Your task to perform on an android device: add a contact Image 0: 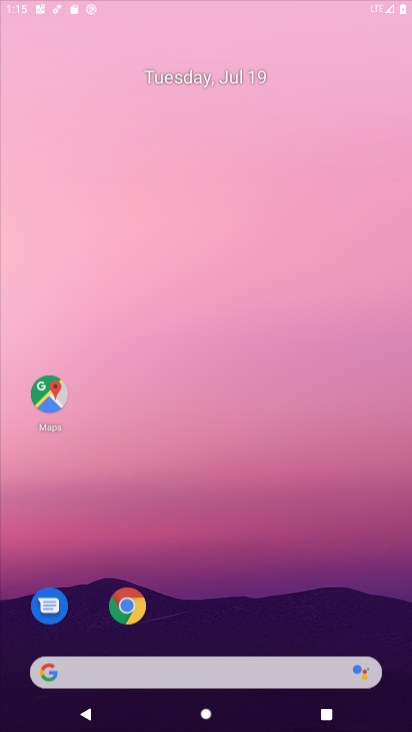
Step 0: drag from (239, 427) to (223, 165)
Your task to perform on an android device: add a contact Image 1: 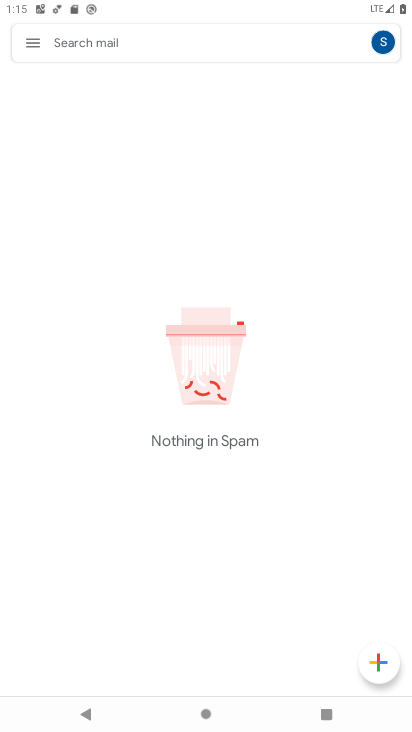
Step 1: press home button
Your task to perform on an android device: add a contact Image 2: 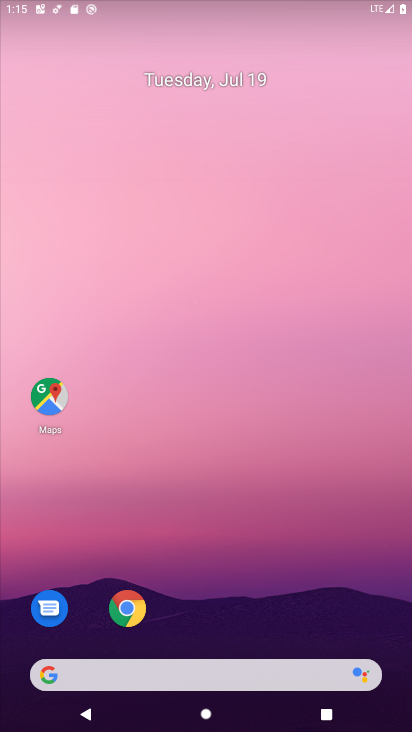
Step 2: drag from (254, 620) to (183, 147)
Your task to perform on an android device: add a contact Image 3: 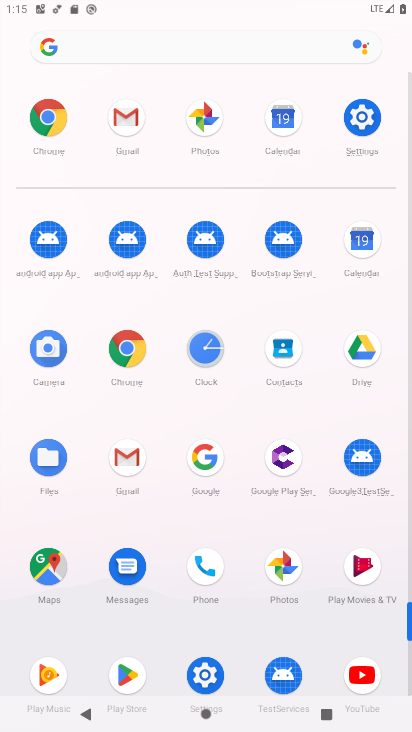
Step 3: drag from (159, 71) to (170, 14)
Your task to perform on an android device: add a contact Image 4: 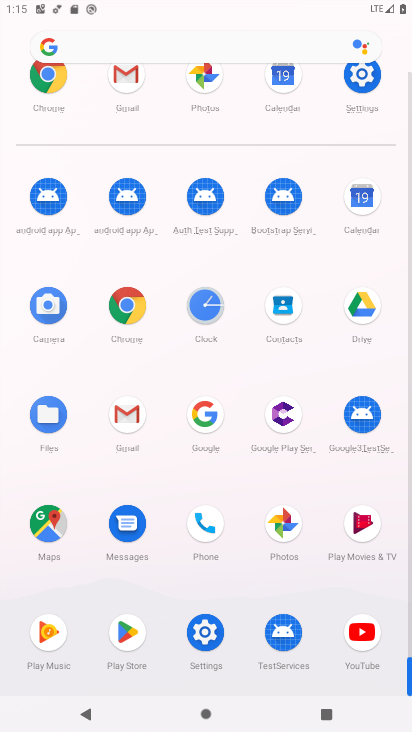
Step 4: click (286, 325)
Your task to perform on an android device: add a contact Image 5: 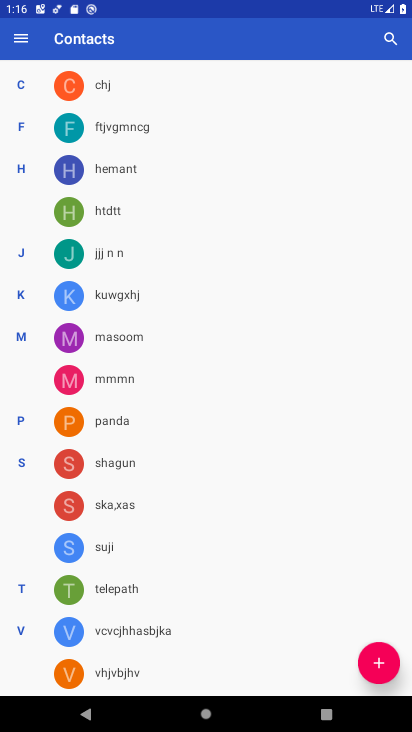
Step 5: click (396, 669)
Your task to perform on an android device: add a contact Image 6: 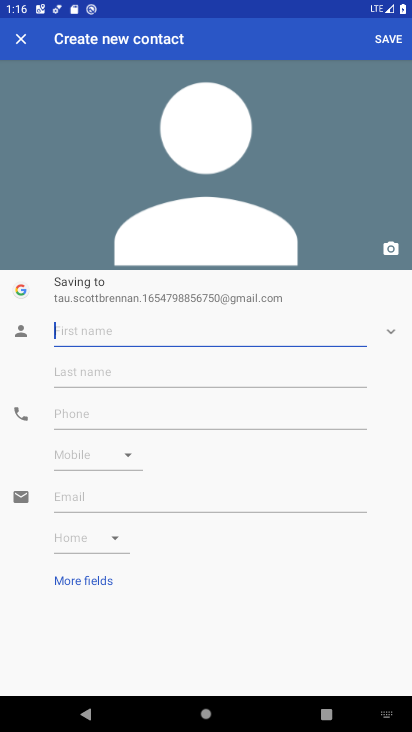
Step 6: click (160, 337)
Your task to perform on an android device: add a contact Image 7: 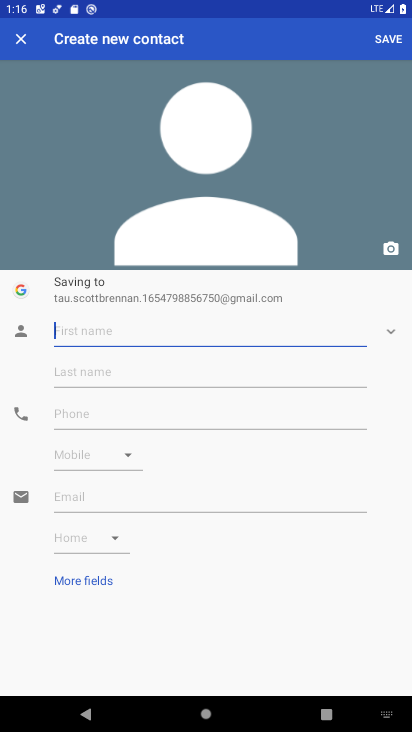
Step 7: type "vxvsd"
Your task to perform on an android device: add a contact Image 8: 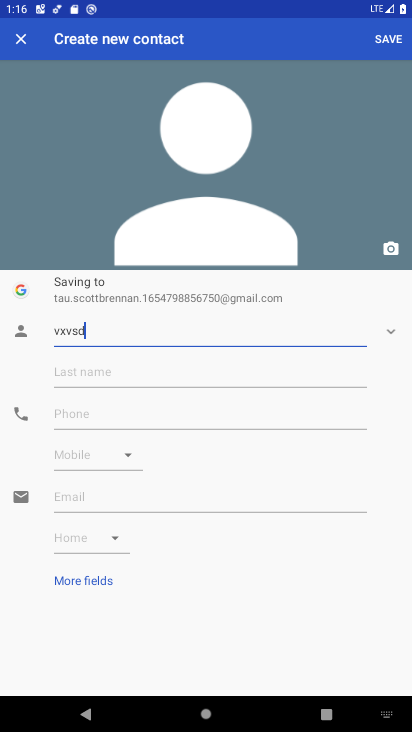
Step 8: type ""
Your task to perform on an android device: add a contact Image 9: 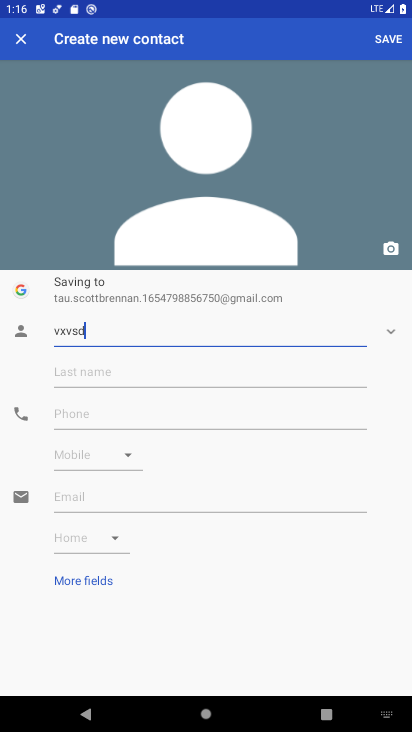
Step 9: click (384, 38)
Your task to perform on an android device: add a contact Image 10: 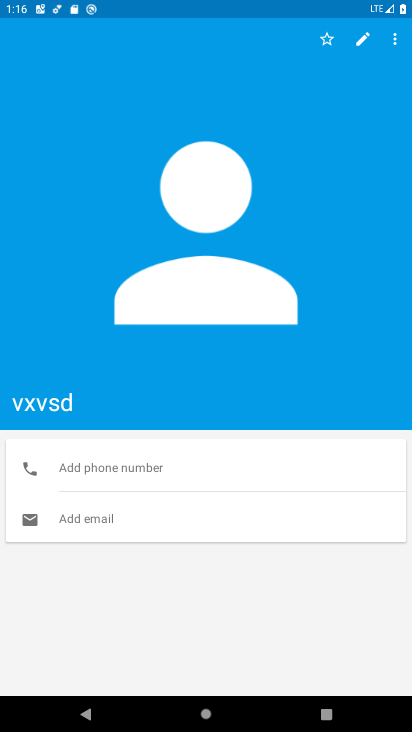
Step 10: task complete